Your task to perform on an android device: turn off notifications settings in the gmail app Image 0: 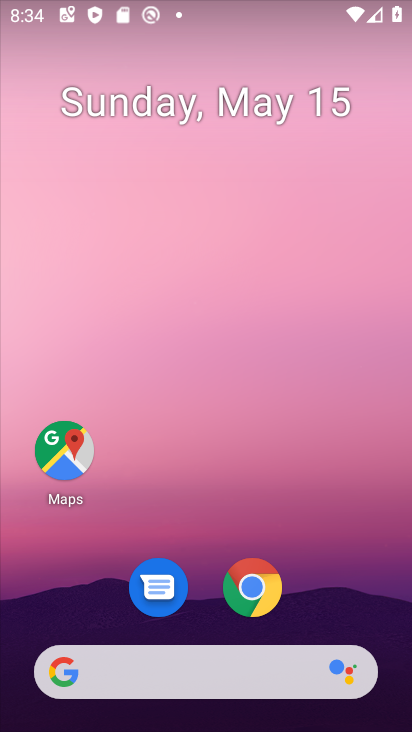
Step 0: drag from (352, 603) to (298, 84)
Your task to perform on an android device: turn off notifications settings in the gmail app Image 1: 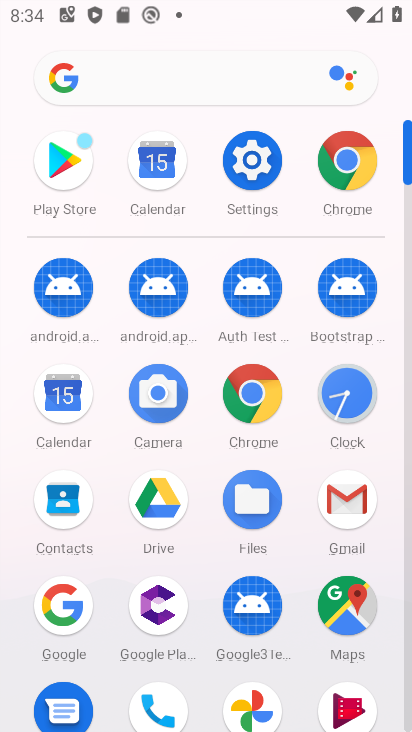
Step 1: click (344, 522)
Your task to perform on an android device: turn off notifications settings in the gmail app Image 2: 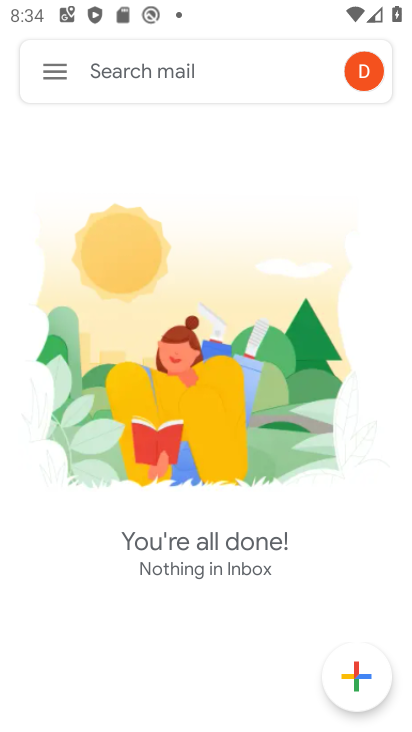
Step 2: click (51, 78)
Your task to perform on an android device: turn off notifications settings in the gmail app Image 3: 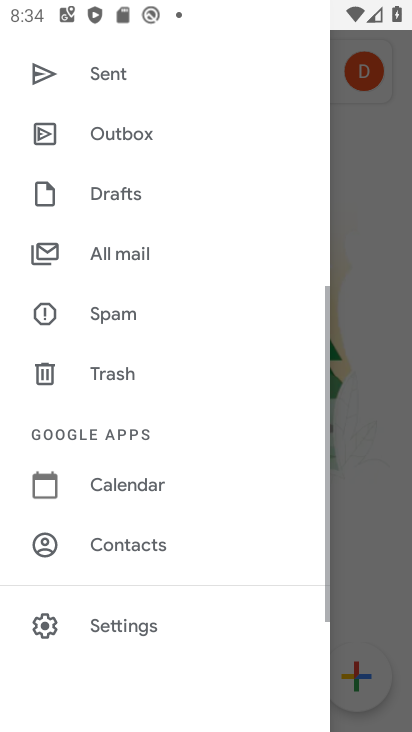
Step 3: click (164, 633)
Your task to perform on an android device: turn off notifications settings in the gmail app Image 4: 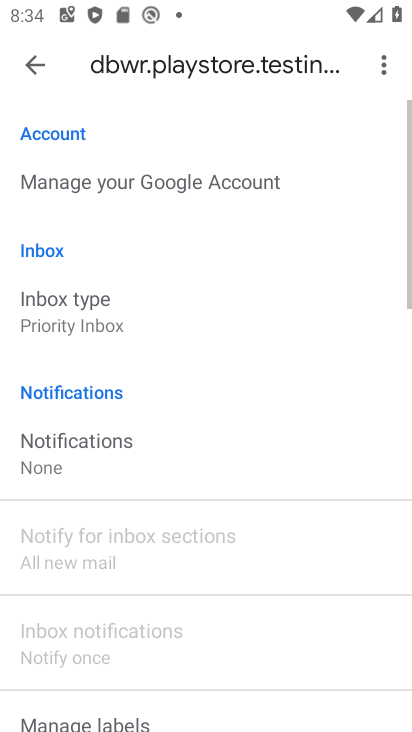
Step 4: click (115, 462)
Your task to perform on an android device: turn off notifications settings in the gmail app Image 5: 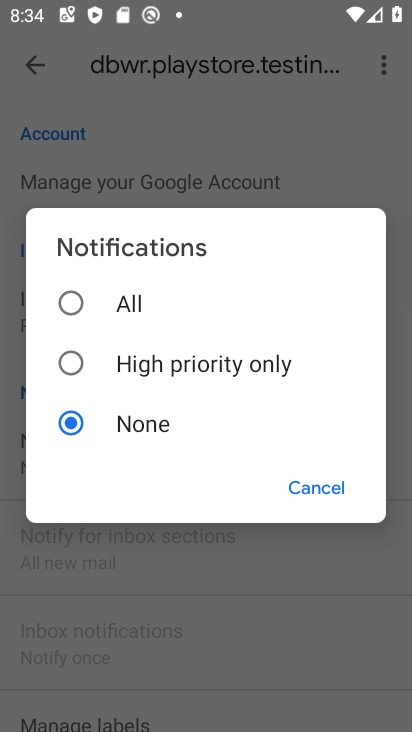
Step 5: task complete